Your task to perform on an android device: open device folders in google photos Image 0: 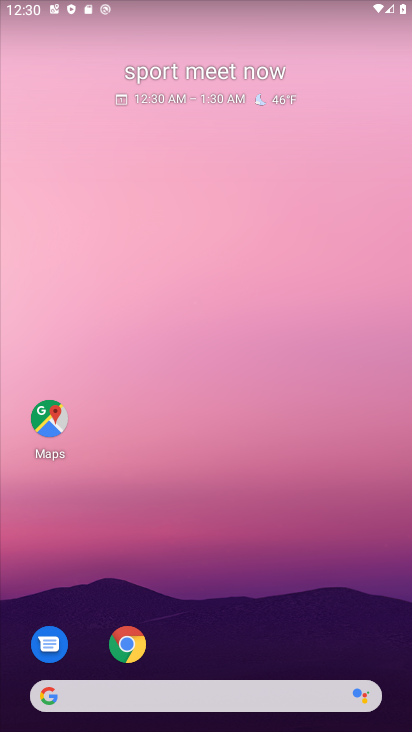
Step 0: drag from (208, 640) to (163, 242)
Your task to perform on an android device: open device folders in google photos Image 1: 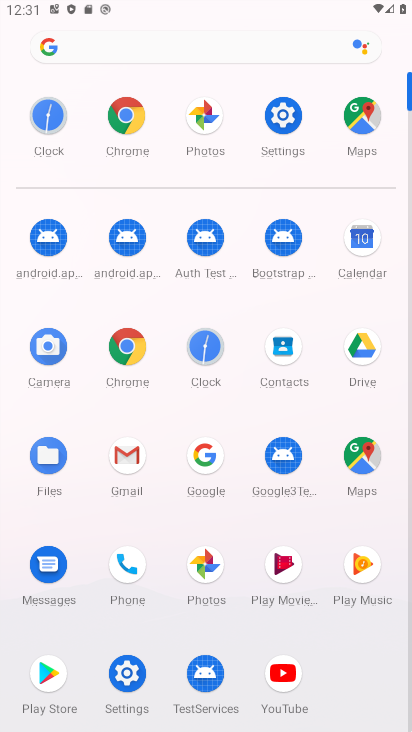
Step 1: click (212, 577)
Your task to perform on an android device: open device folders in google photos Image 2: 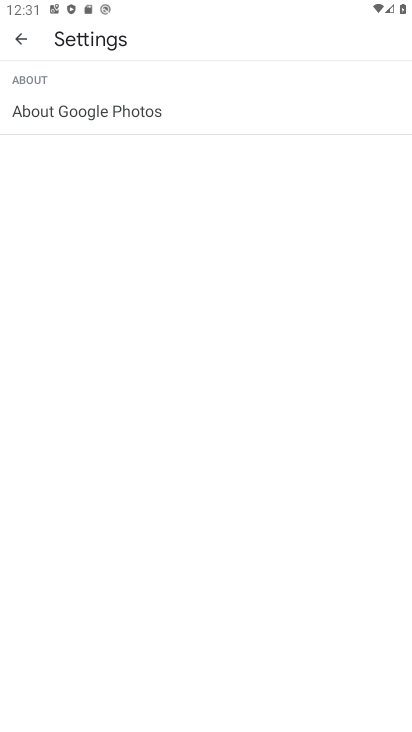
Step 2: click (13, 42)
Your task to perform on an android device: open device folders in google photos Image 3: 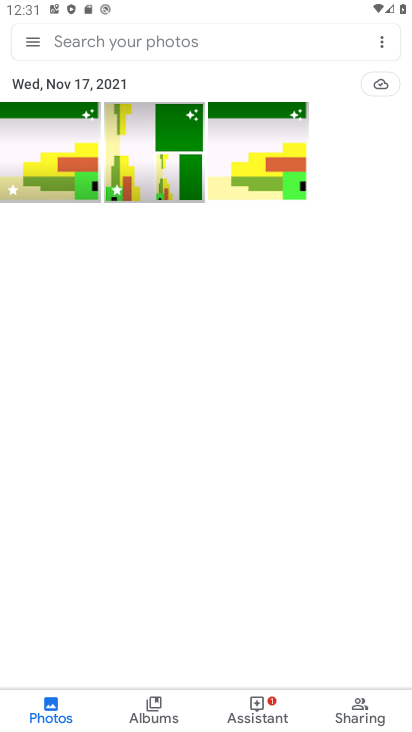
Step 3: click (37, 43)
Your task to perform on an android device: open device folders in google photos Image 4: 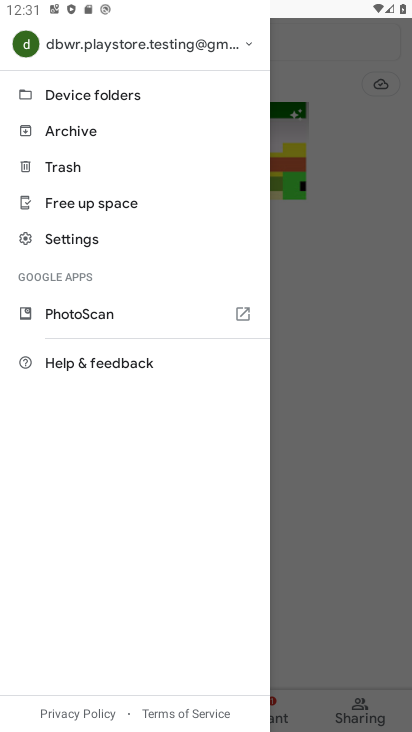
Step 4: click (107, 97)
Your task to perform on an android device: open device folders in google photos Image 5: 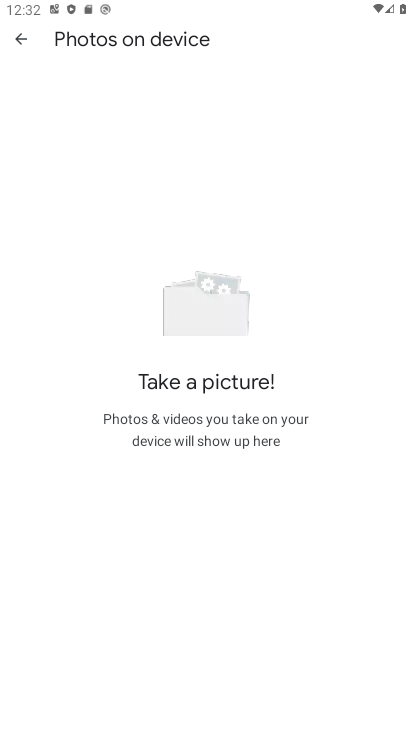
Step 5: press back button
Your task to perform on an android device: open device folders in google photos Image 6: 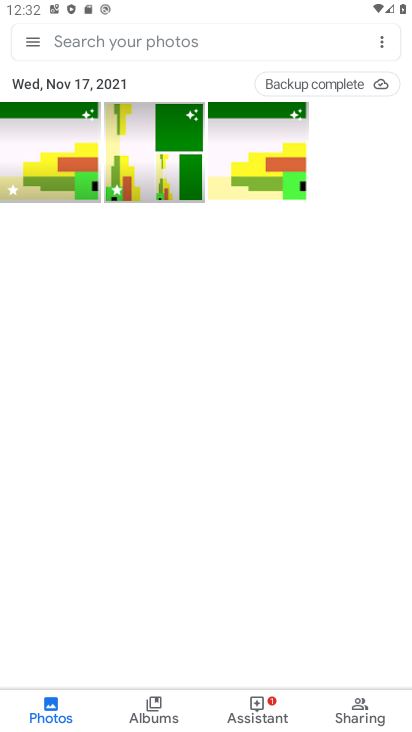
Step 6: click (27, 42)
Your task to perform on an android device: open device folders in google photos Image 7: 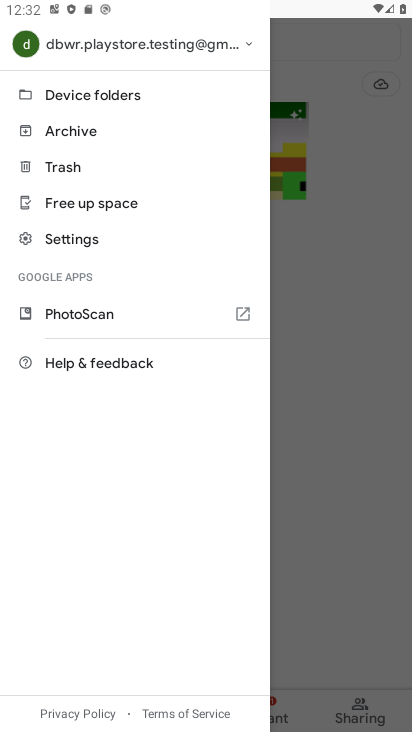
Step 7: click (94, 103)
Your task to perform on an android device: open device folders in google photos Image 8: 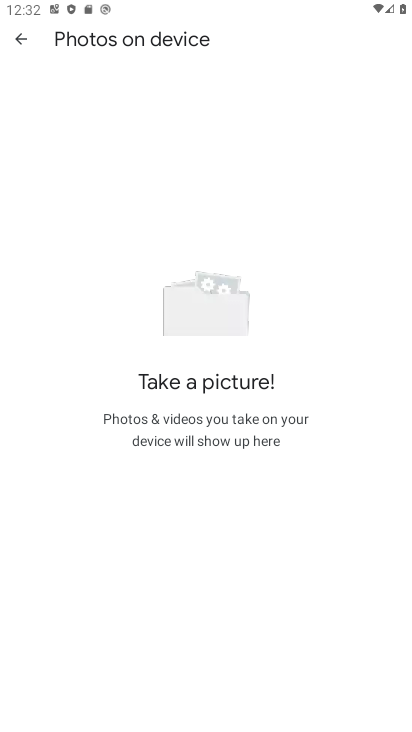
Step 8: task complete